Your task to perform on an android device: turn on translation in the chrome app Image 0: 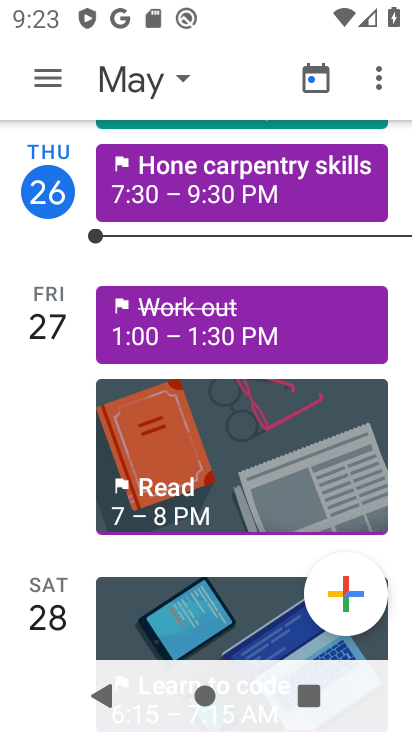
Step 0: press home button
Your task to perform on an android device: turn on translation in the chrome app Image 1: 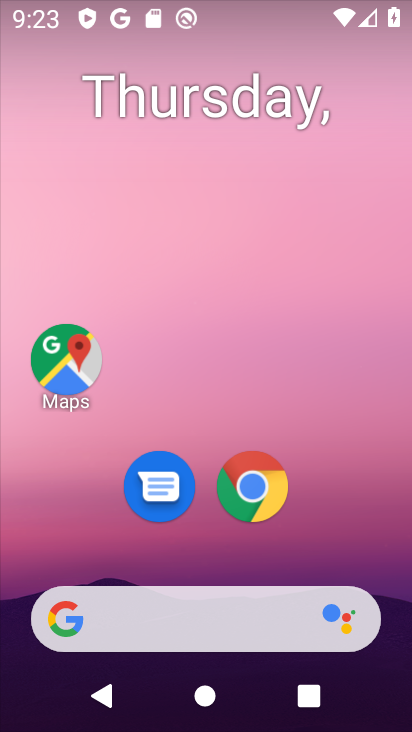
Step 1: click (241, 484)
Your task to perform on an android device: turn on translation in the chrome app Image 2: 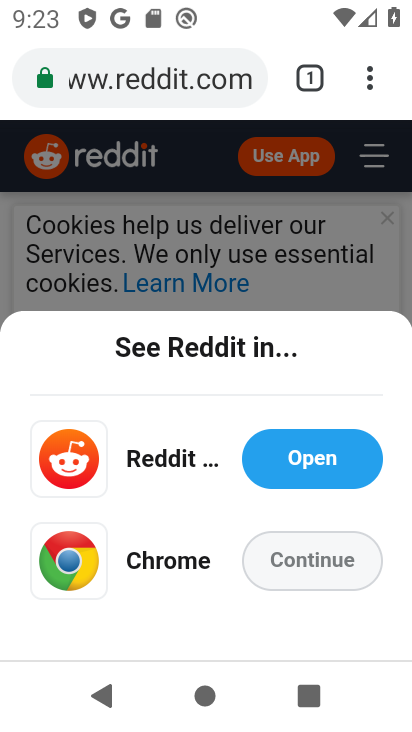
Step 2: click (370, 75)
Your task to perform on an android device: turn on translation in the chrome app Image 3: 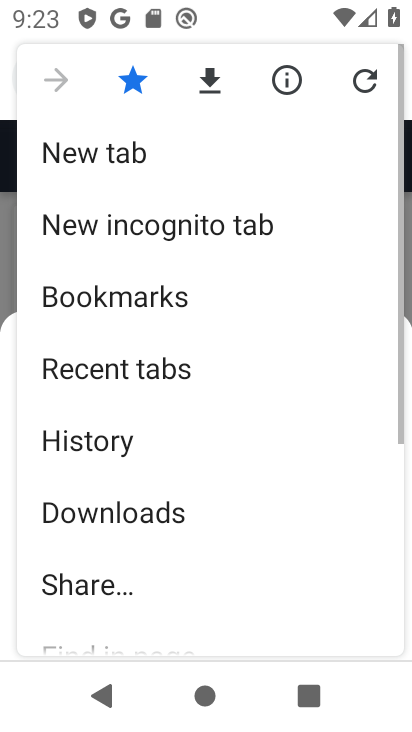
Step 3: drag from (56, 556) to (46, 172)
Your task to perform on an android device: turn on translation in the chrome app Image 4: 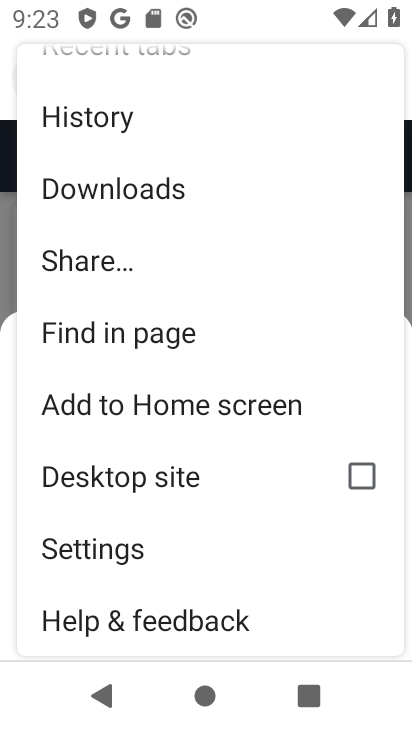
Step 4: click (62, 546)
Your task to perform on an android device: turn on translation in the chrome app Image 5: 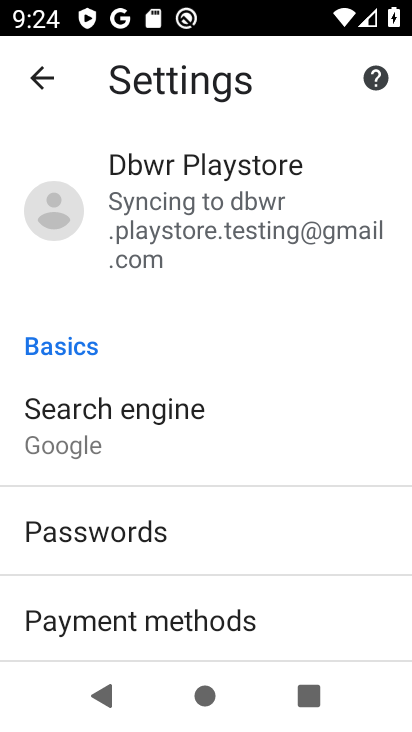
Step 5: drag from (220, 551) to (194, 169)
Your task to perform on an android device: turn on translation in the chrome app Image 6: 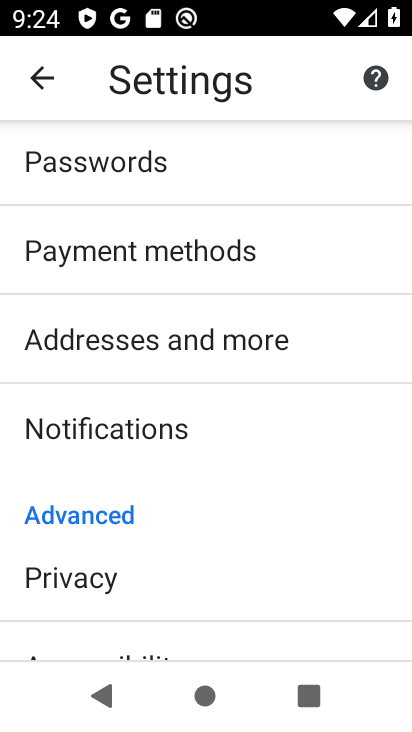
Step 6: drag from (124, 608) to (118, 107)
Your task to perform on an android device: turn on translation in the chrome app Image 7: 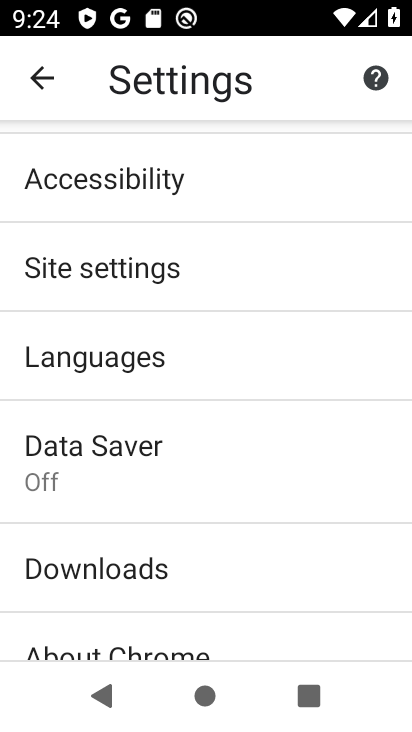
Step 7: click (198, 364)
Your task to perform on an android device: turn on translation in the chrome app Image 8: 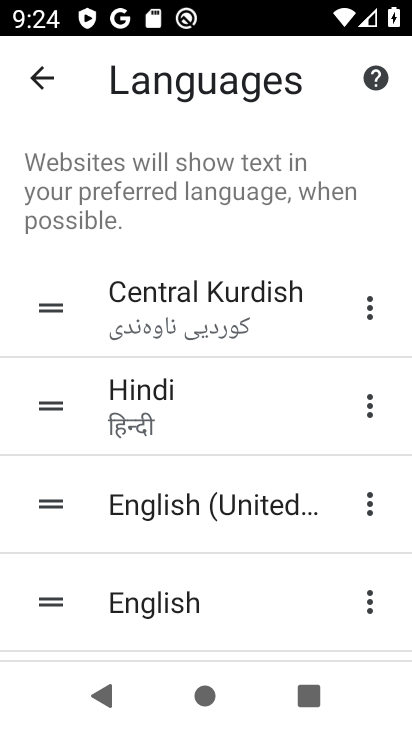
Step 8: task complete